Your task to perform on an android device: Show me the alarms in the clock app Image 0: 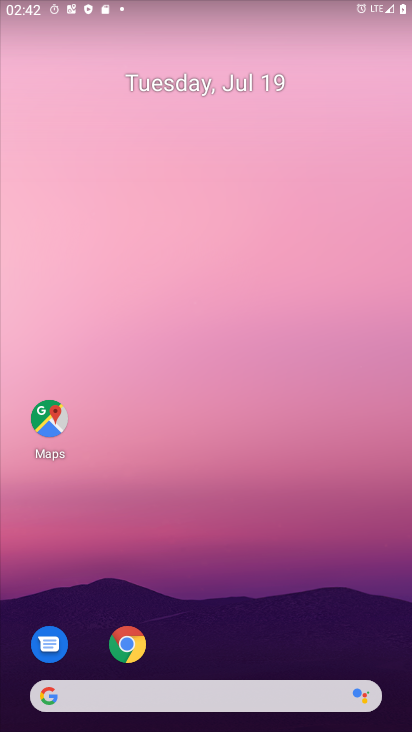
Step 0: drag from (220, 728) to (176, 166)
Your task to perform on an android device: Show me the alarms in the clock app Image 1: 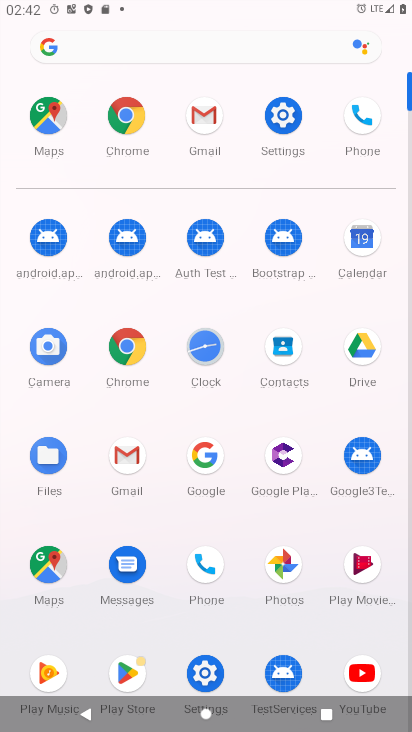
Step 1: click (207, 349)
Your task to perform on an android device: Show me the alarms in the clock app Image 2: 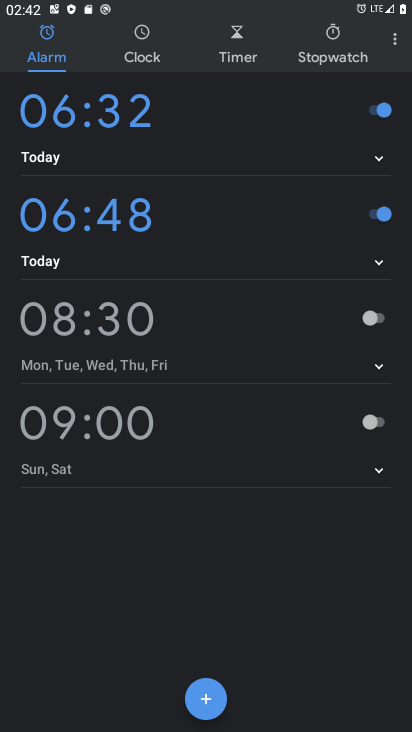
Step 2: task complete